Your task to perform on an android device: Go to wifi settings Image 0: 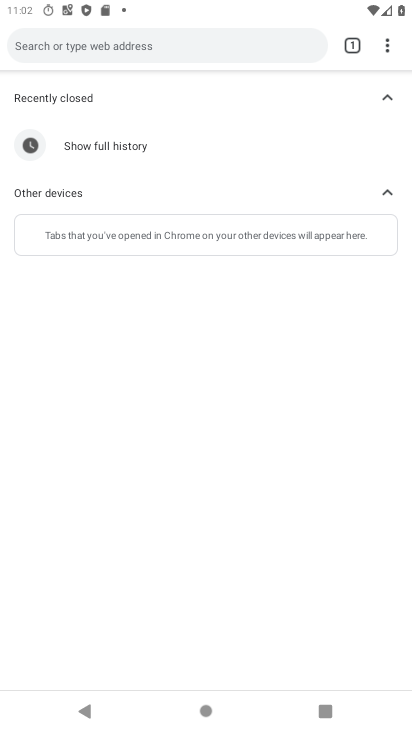
Step 0: press home button
Your task to perform on an android device: Go to wifi settings Image 1: 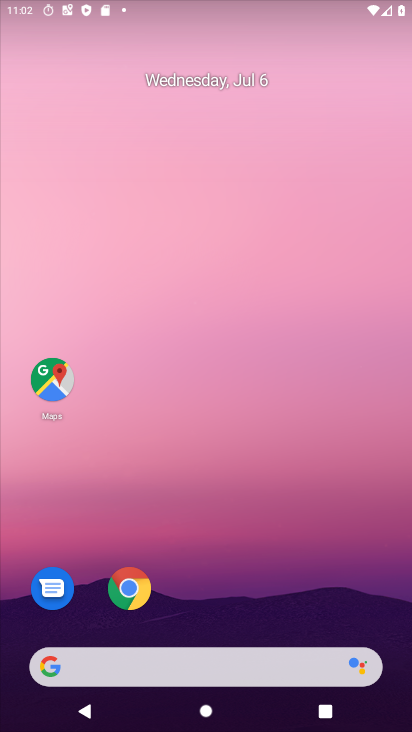
Step 1: drag from (248, 727) to (179, 198)
Your task to perform on an android device: Go to wifi settings Image 2: 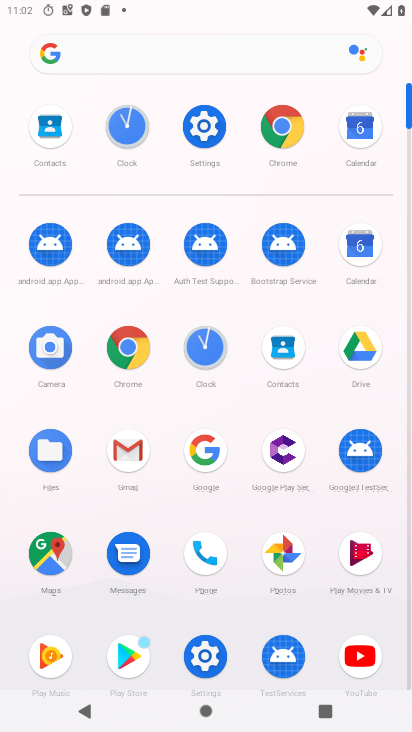
Step 2: click (205, 121)
Your task to perform on an android device: Go to wifi settings Image 3: 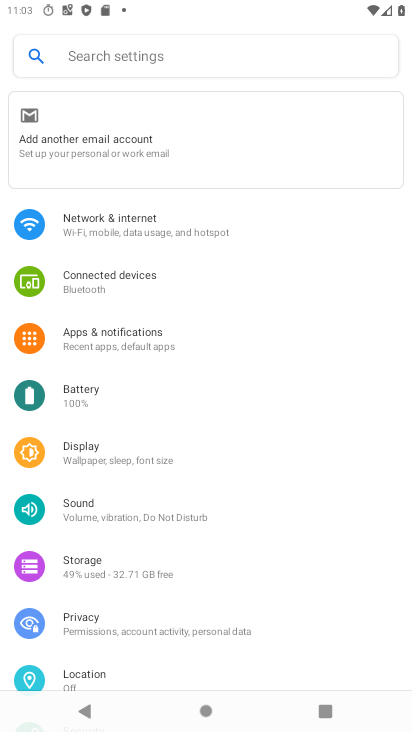
Step 3: click (112, 227)
Your task to perform on an android device: Go to wifi settings Image 4: 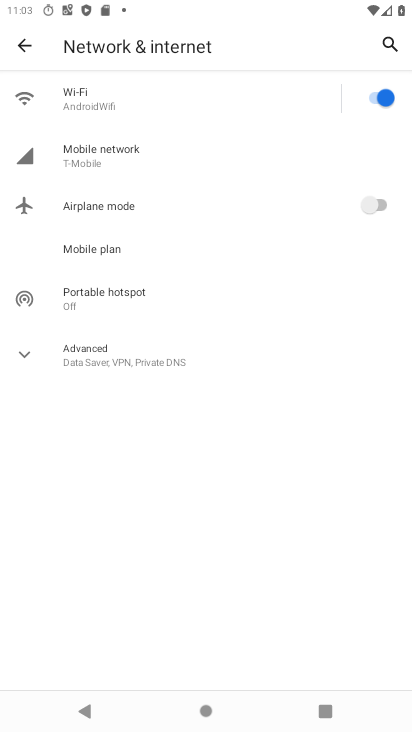
Step 4: click (73, 101)
Your task to perform on an android device: Go to wifi settings Image 5: 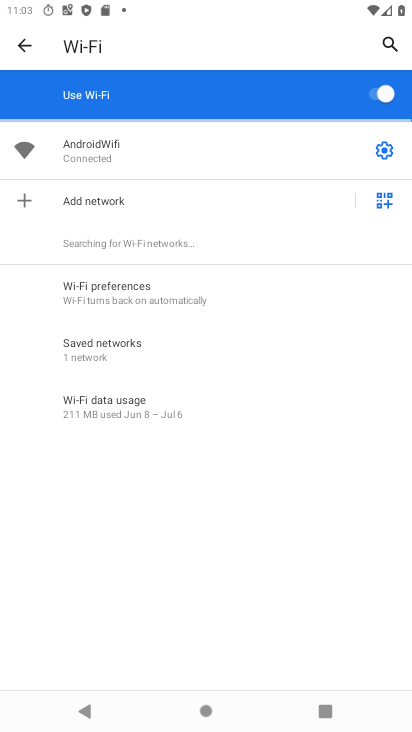
Step 5: task complete